Your task to perform on an android device: open sync settings in chrome Image 0: 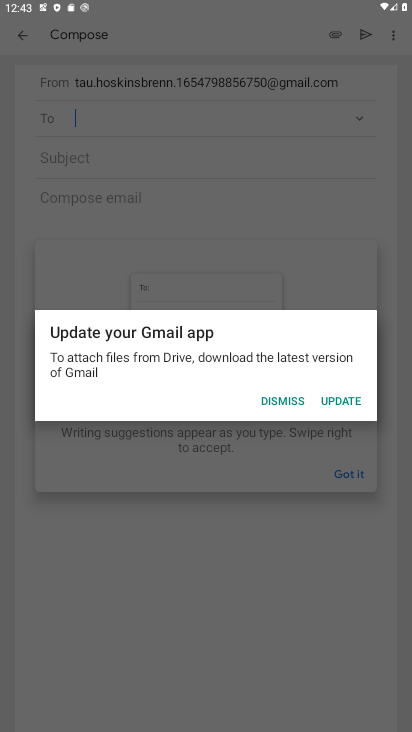
Step 0: press home button
Your task to perform on an android device: open sync settings in chrome Image 1: 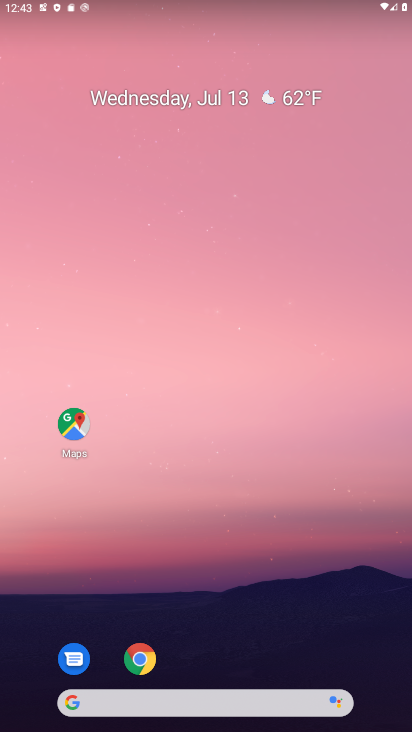
Step 1: drag from (236, 726) to (242, 127)
Your task to perform on an android device: open sync settings in chrome Image 2: 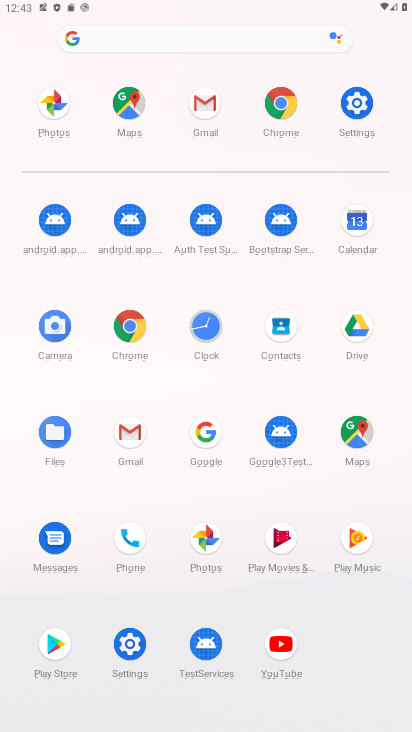
Step 2: click (284, 104)
Your task to perform on an android device: open sync settings in chrome Image 3: 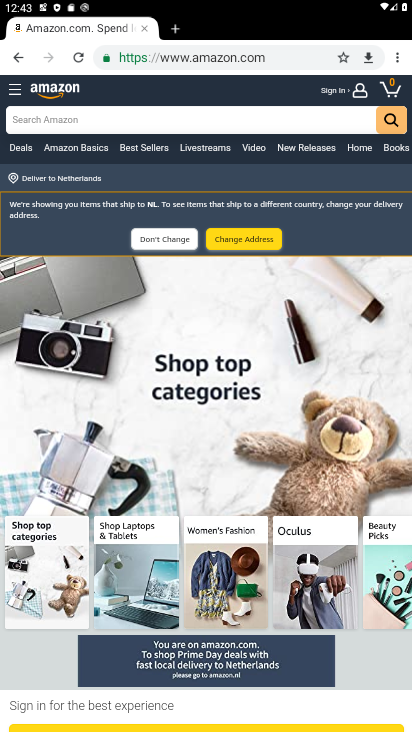
Step 3: click (399, 63)
Your task to perform on an android device: open sync settings in chrome Image 4: 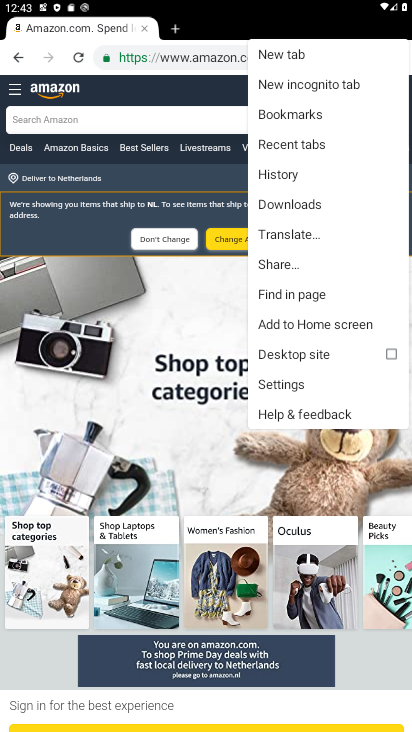
Step 4: click (283, 382)
Your task to perform on an android device: open sync settings in chrome Image 5: 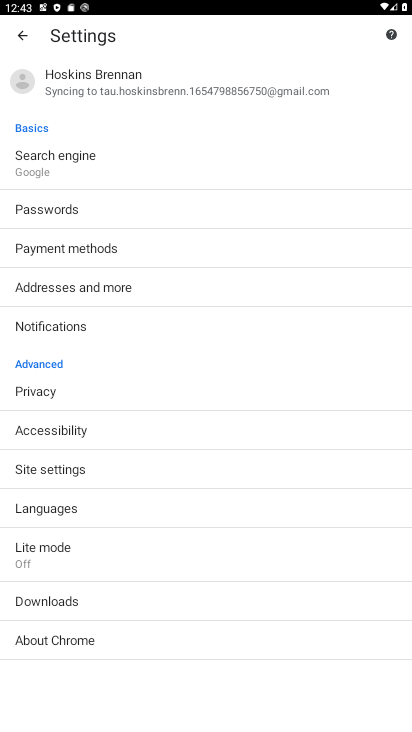
Step 5: click (51, 470)
Your task to perform on an android device: open sync settings in chrome Image 6: 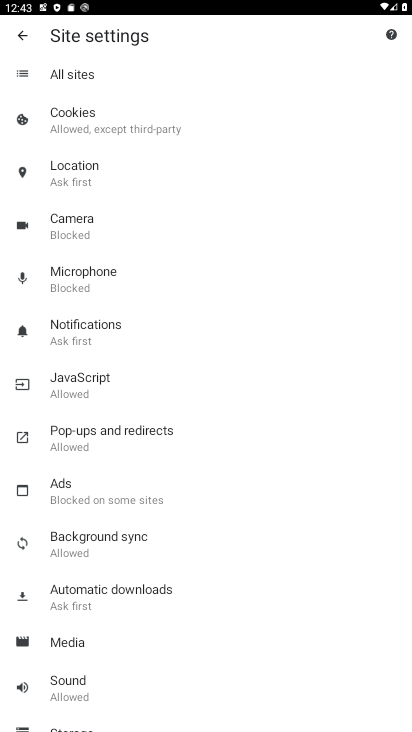
Step 6: click (74, 536)
Your task to perform on an android device: open sync settings in chrome Image 7: 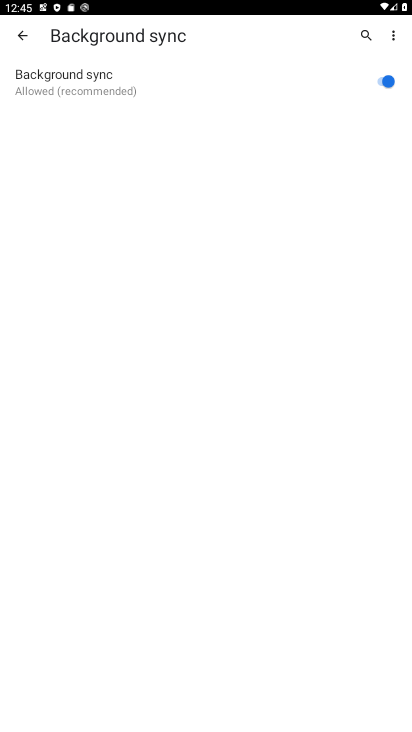
Step 7: task complete